Your task to perform on an android device: uninstall "Duolingo: language lessons" Image 0: 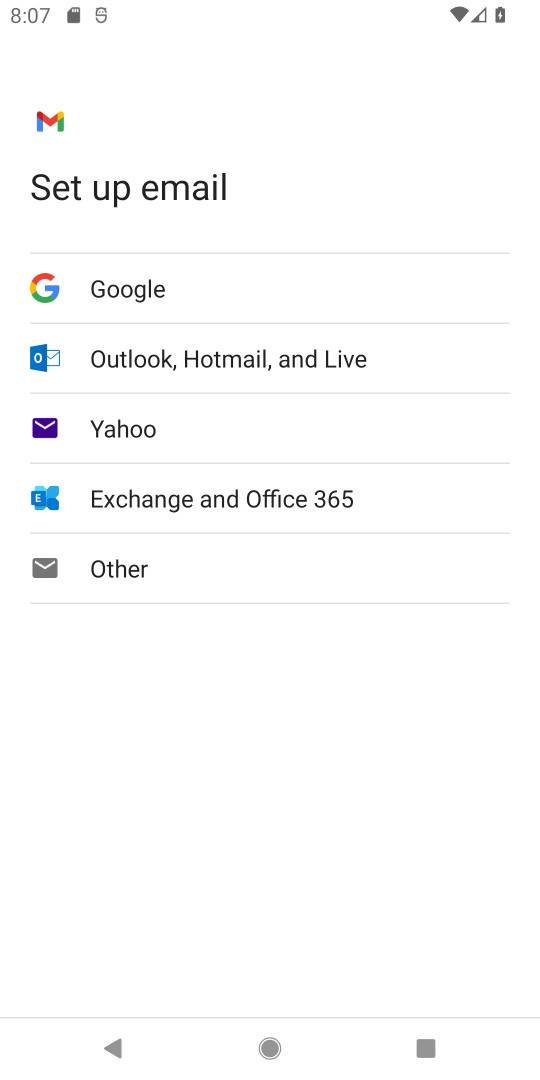
Step 0: press home button
Your task to perform on an android device: uninstall "Duolingo: language lessons" Image 1: 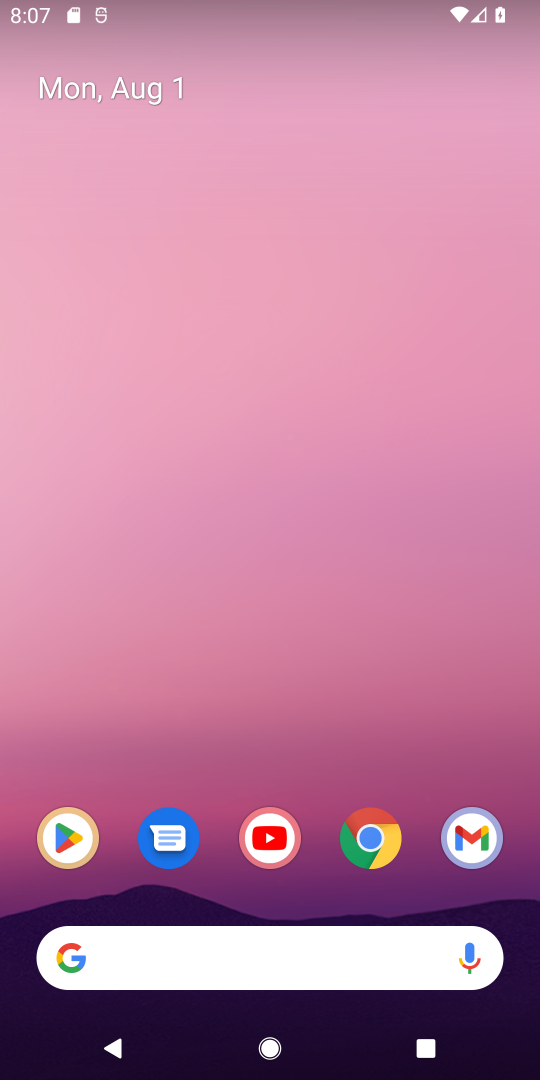
Step 1: click (84, 830)
Your task to perform on an android device: uninstall "Duolingo: language lessons" Image 2: 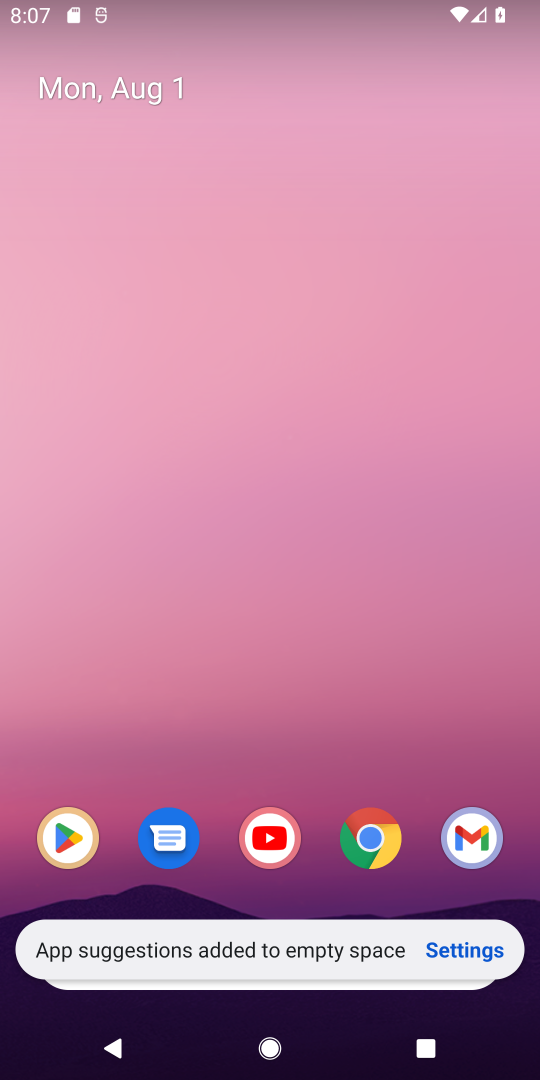
Step 2: click (73, 839)
Your task to perform on an android device: uninstall "Duolingo: language lessons" Image 3: 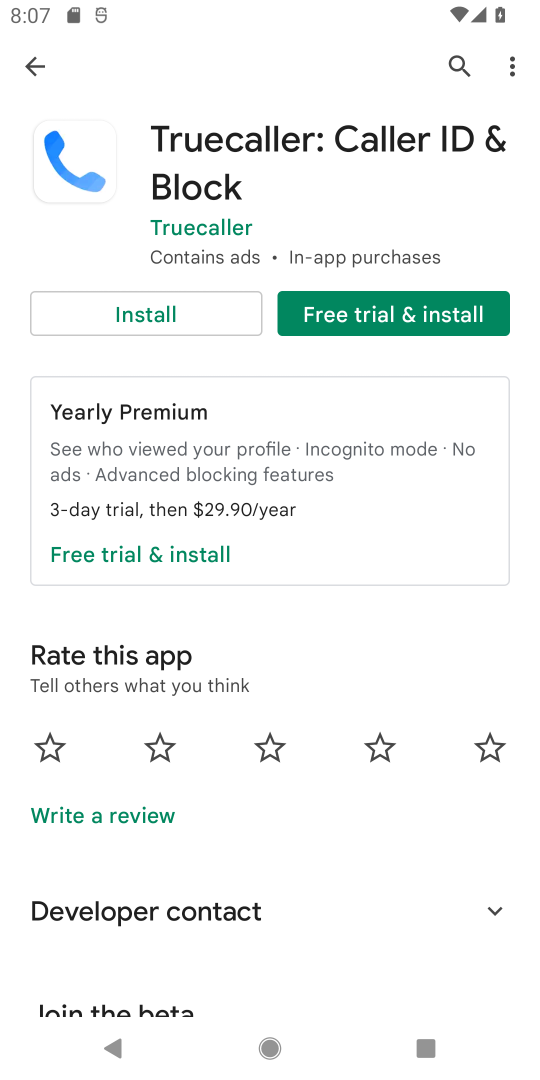
Step 3: click (449, 64)
Your task to perform on an android device: uninstall "Duolingo: language lessons" Image 4: 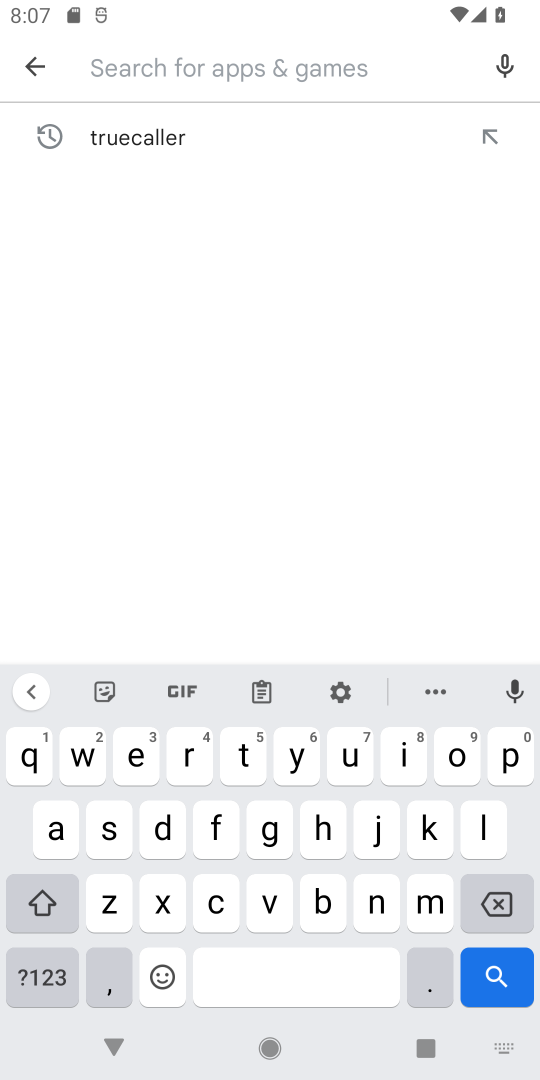
Step 4: click (159, 829)
Your task to perform on an android device: uninstall "Duolingo: language lessons" Image 5: 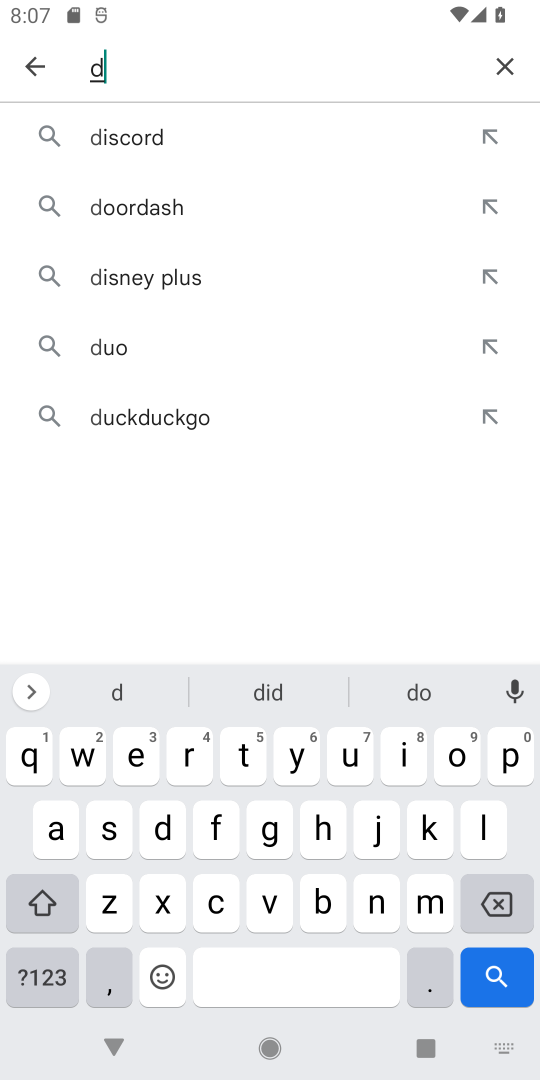
Step 5: click (357, 751)
Your task to perform on an android device: uninstall "Duolingo: language lessons" Image 6: 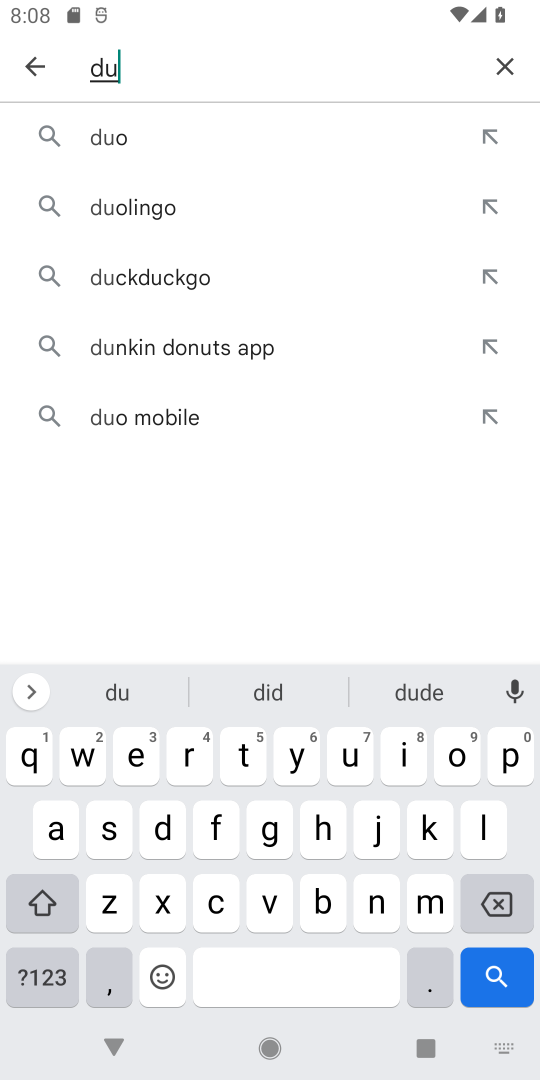
Step 6: click (457, 756)
Your task to perform on an android device: uninstall "Duolingo: language lessons" Image 7: 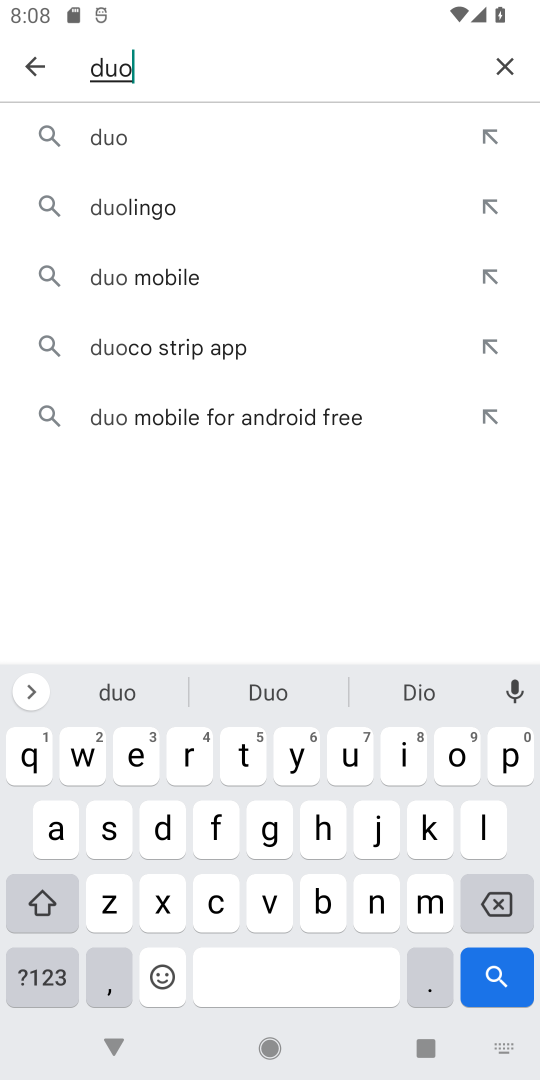
Step 7: click (153, 214)
Your task to perform on an android device: uninstall "Duolingo: language lessons" Image 8: 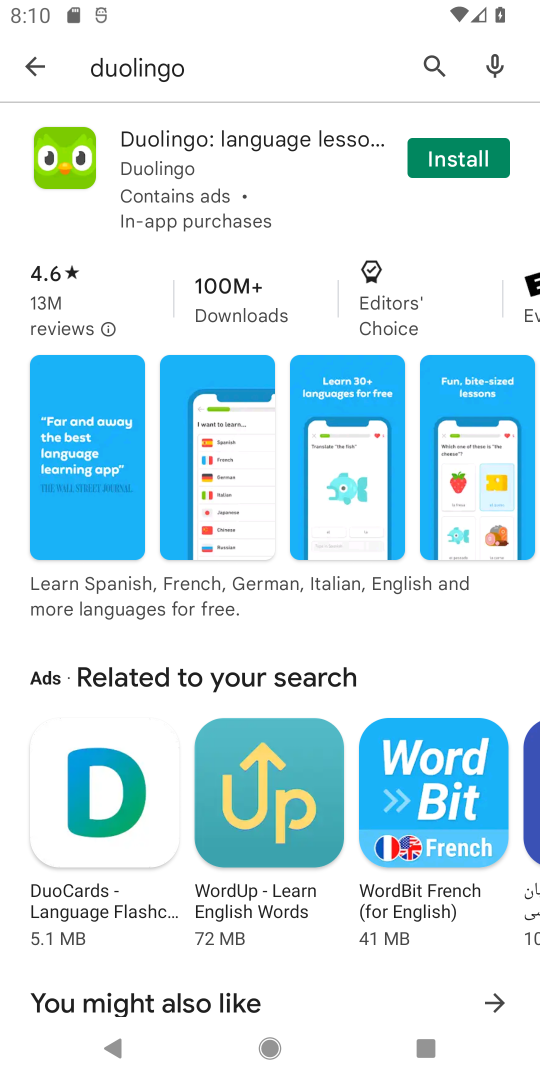
Step 8: task complete